Your task to perform on an android device: When is my next appointment? Image 0: 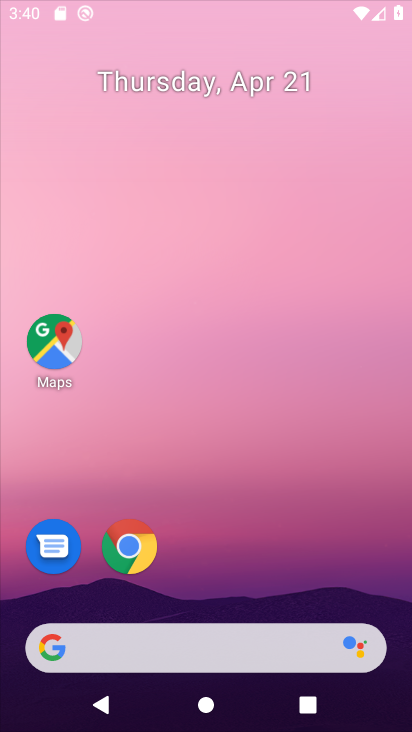
Step 0: click (317, 135)
Your task to perform on an android device: When is my next appointment? Image 1: 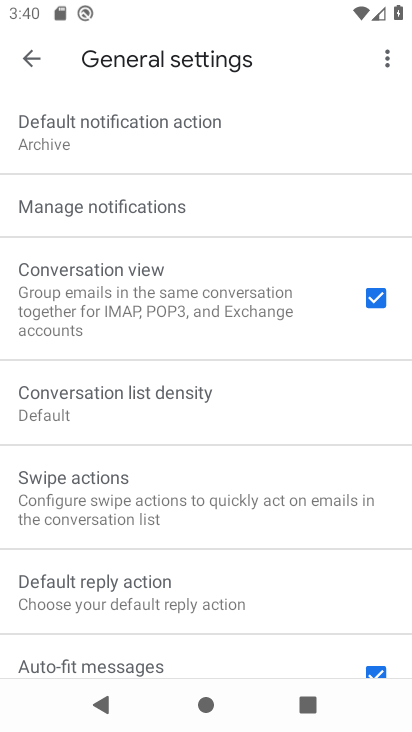
Step 1: press home button
Your task to perform on an android device: When is my next appointment? Image 2: 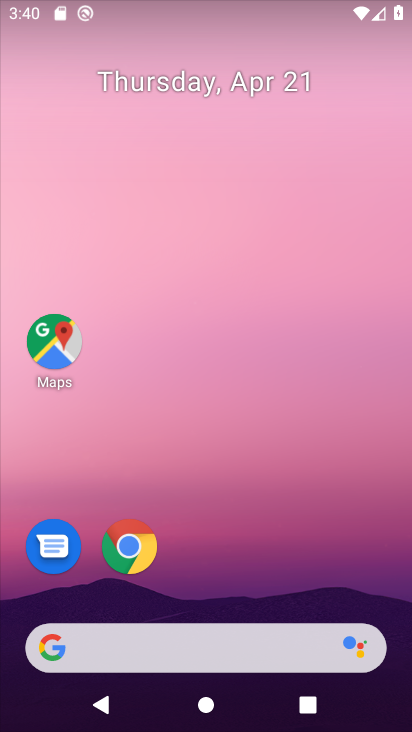
Step 2: drag from (181, 578) to (264, 82)
Your task to perform on an android device: When is my next appointment? Image 3: 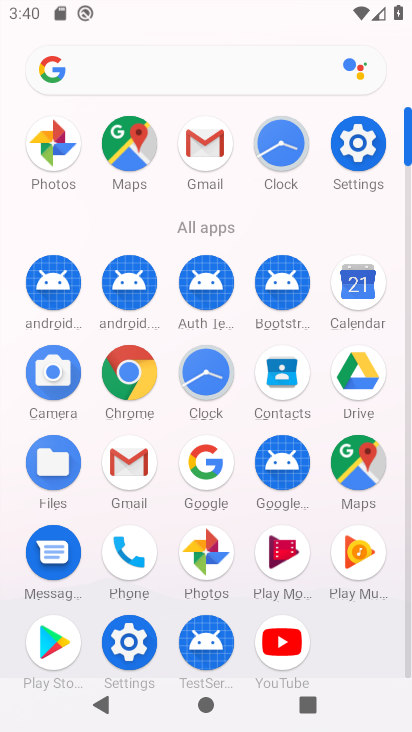
Step 3: click (359, 278)
Your task to perform on an android device: When is my next appointment? Image 4: 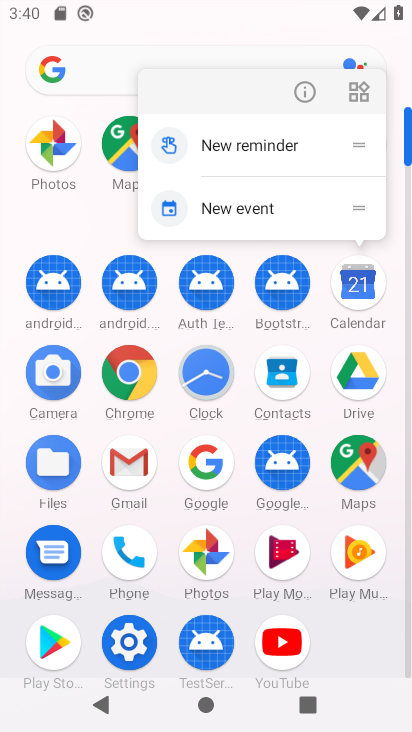
Step 4: click (290, 92)
Your task to perform on an android device: When is my next appointment? Image 5: 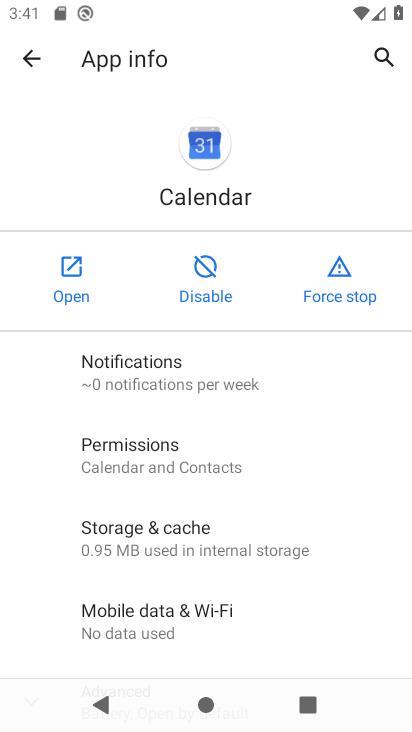
Step 5: click (87, 275)
Your task to perform on an android device: When is my next appointment? Image 6: 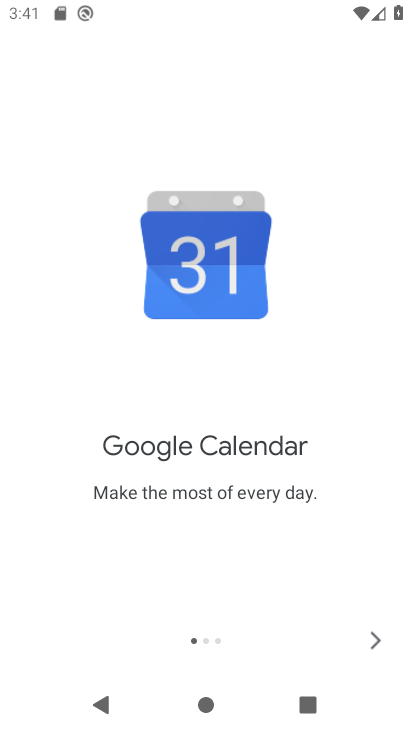
Step 6: click (365, 632)
Your task to perform on an android device: When is my next appointment? Image 7: 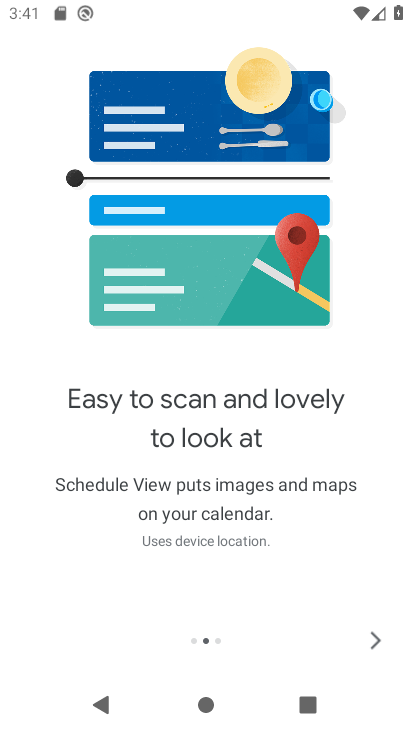
Step 7: click (369, 634)
Your task to perform on an android device: When is my next appointment? Image 8: 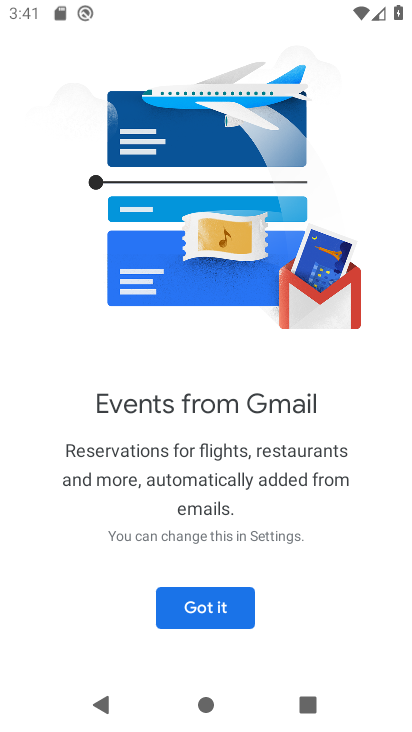
Step 8: click (176, 608)
Your task to perform on an android device: When is my next appointment? Image 9: 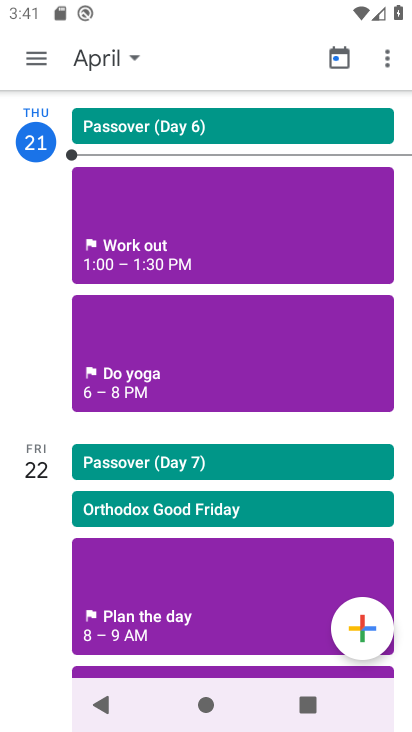
Step 9: task complete